Your task to perform on an android device: What's the weather going to be this weekend? Image 0: 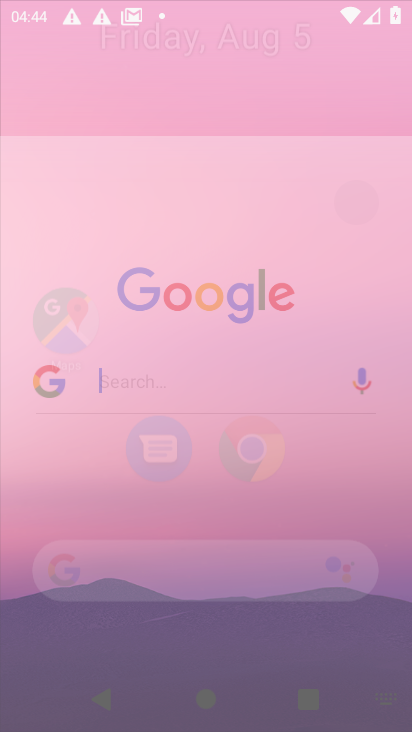
Step 0: click (148, 206)
Your task to perform on an android device: What's the weather going to be this weekend? Image 1: 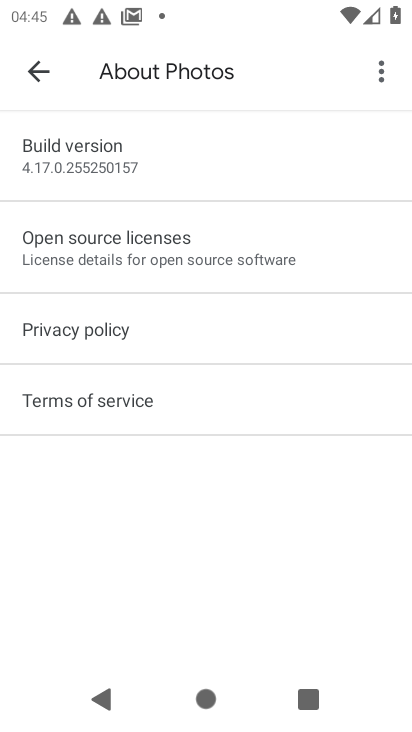
Step 1: press home button
Your task to perform on an android device: What's the weather going to be this weekend? Image 2: 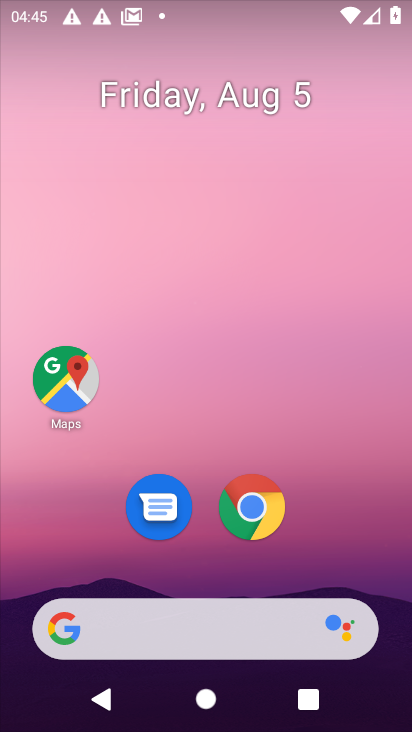
Step 2: drag from (227, 598) to (176, 275)
Your task to perform on an android device: What's the weather going to be this weekend? Image 3: 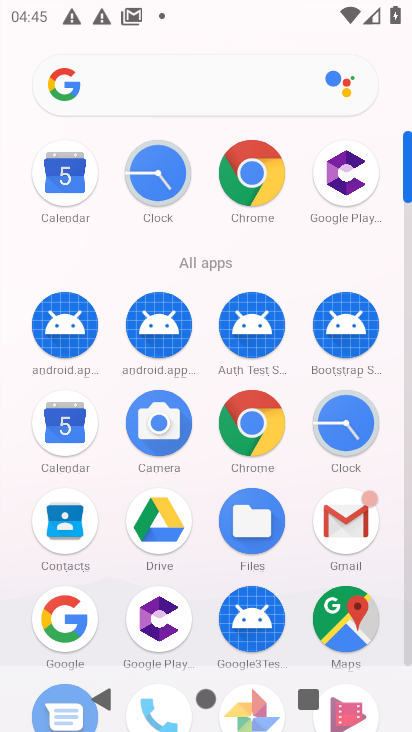
Step 3: click (49, 632)
Your task to perform on an android device: What's the weather going to be this weekend? Image 4: 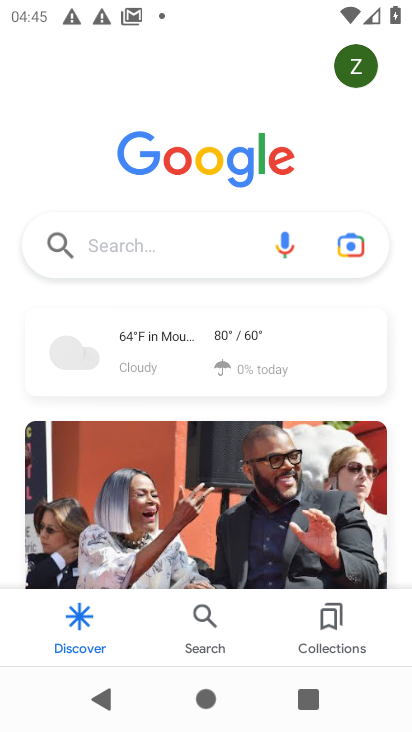
Step 4: click (175, 345)
Your task to perform on an android device: What's the weather going to be this weekend? Image 5: 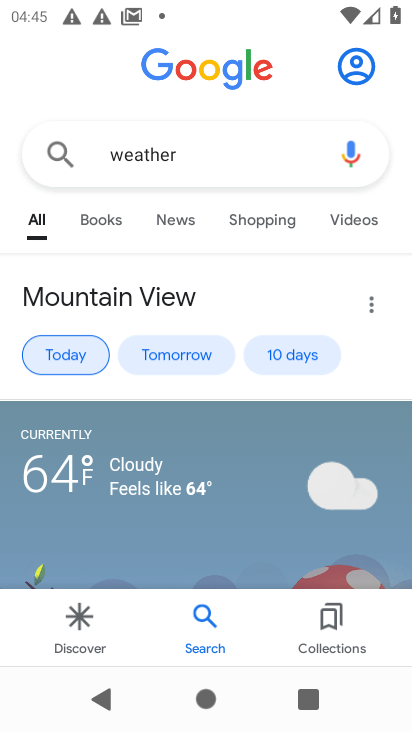
Step 5: click (304, 356)
Your task to perform on an android device: What's the weather going to be this weekend? Image 6: 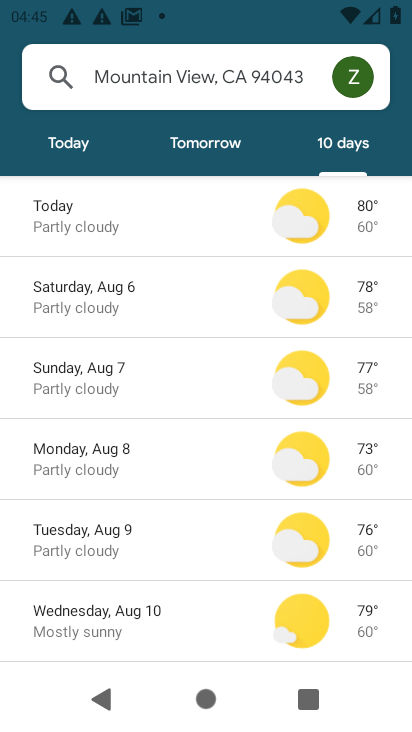
Step 6: task complete